Your task to perform on an android device: see tabs open on other devices in the chrome app Image 0: 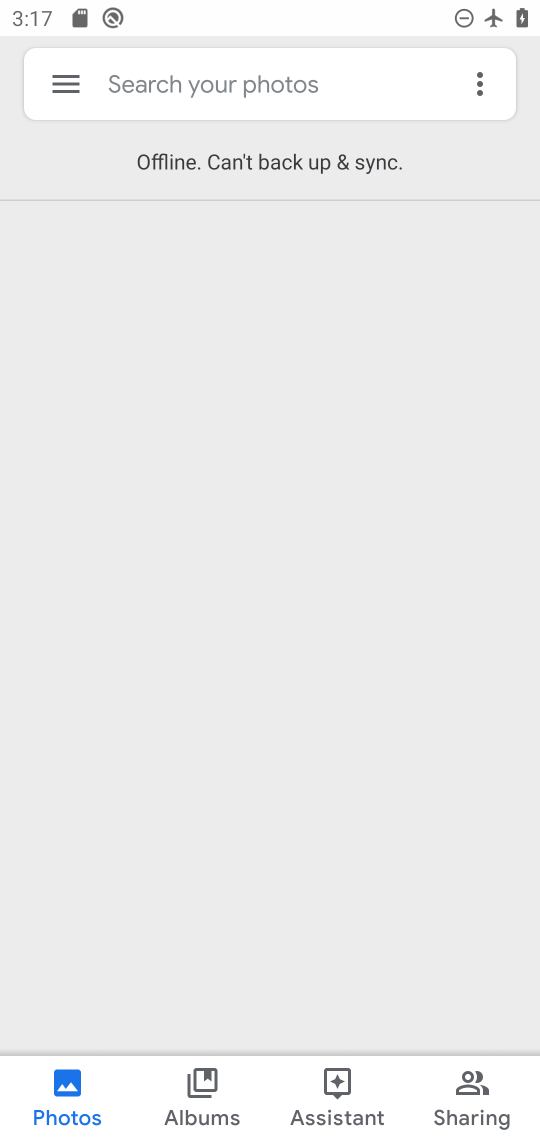
Step 0: press home button
Your task to perform on an android device: see tabs open on other devices in the chrome app Image 1: 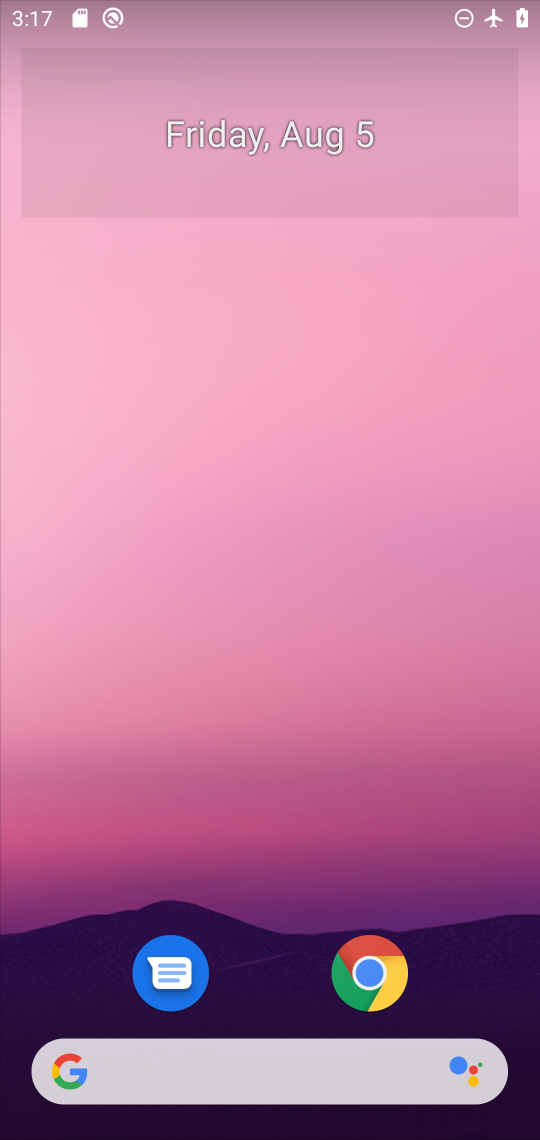
Step 1: drag from (281, 1017) to (328, 48)
Your task to perform on an android device: see tabs open on other devices in the chrome app Image 2: 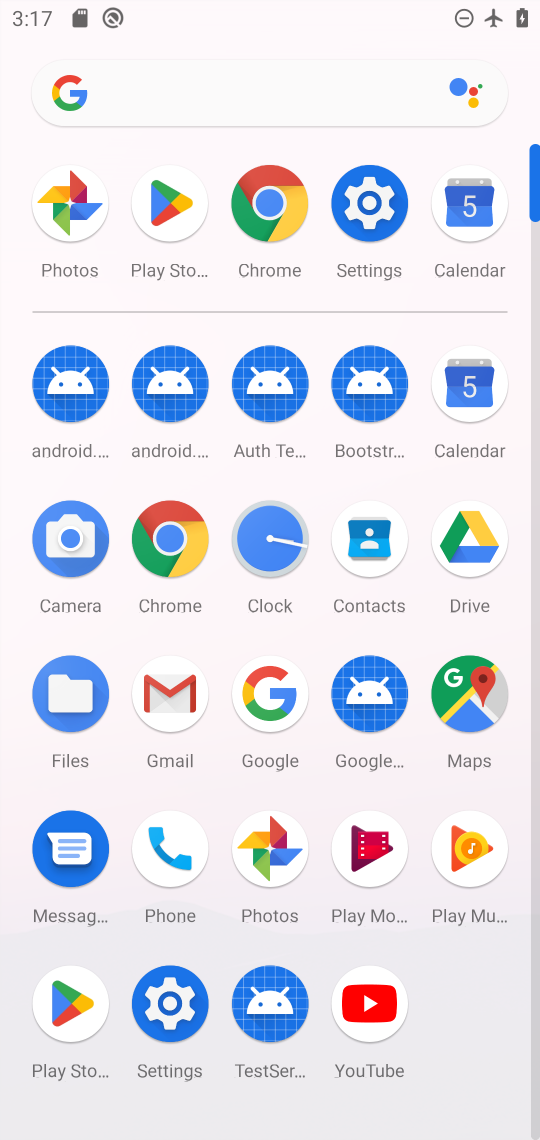
Step 2: click (184, 559)
Your task to perform on an android device: see tabs open on other devices in the chrome app Image 3: 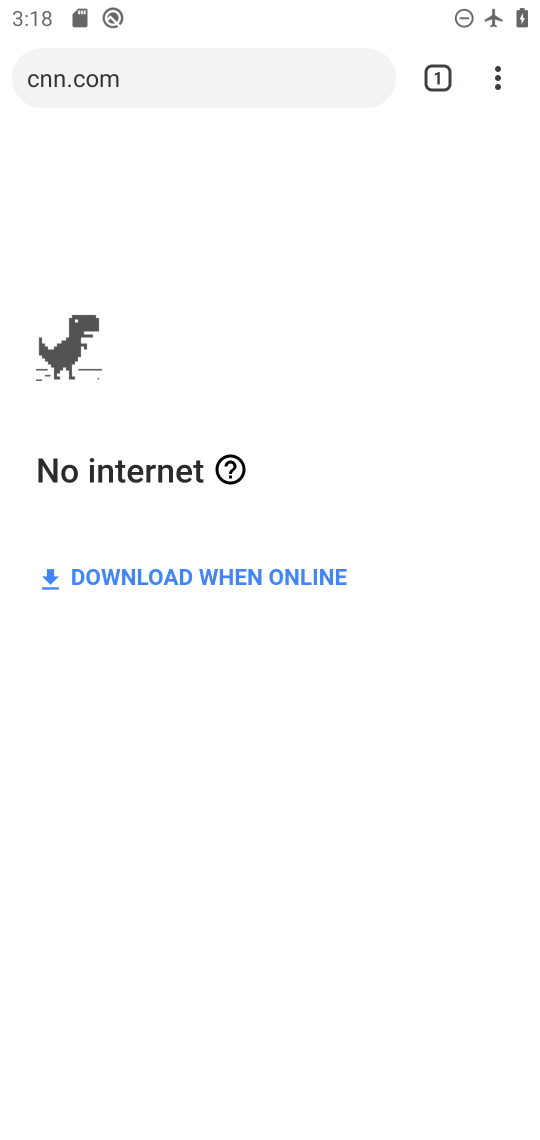
Step 3: click (422, 83)
Your task to perform on an android device: see tabs open on other devices in the chrome app Image 4: 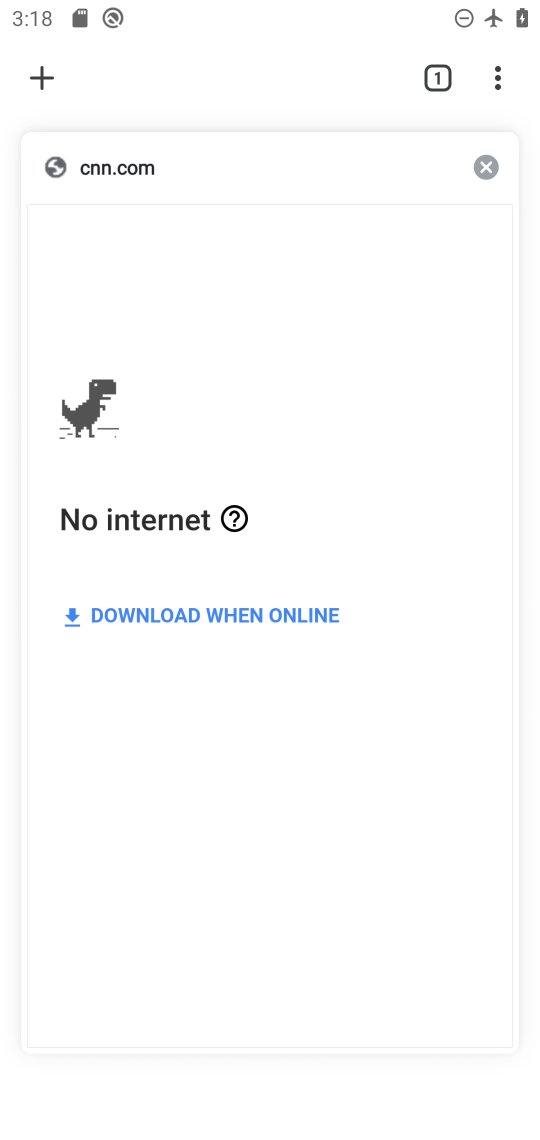
Step 4: task complete